Your task to perform on an android device: see creations saved in the google photos Image 0: 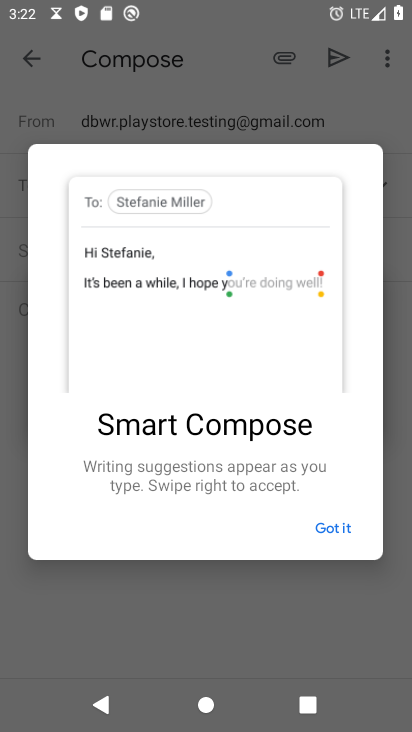
Step 0: press home button
Your task to perform on an android device: see creations saved in the google photos Image 1: 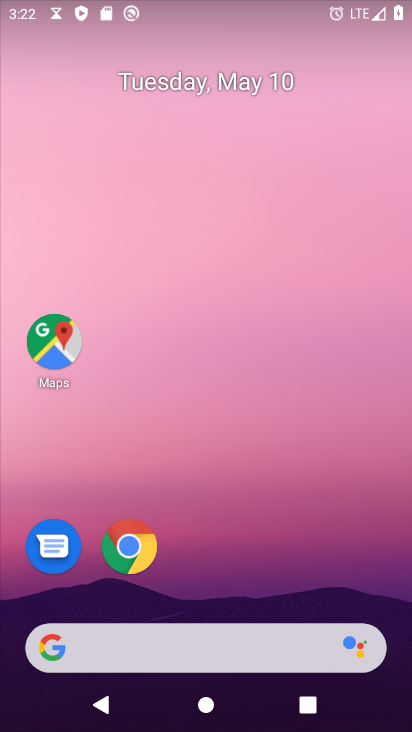
Step 1: drag from (224, 570) to (389, 11)
Your task to perform on an android device: see creations saved in the google photos Image 2: 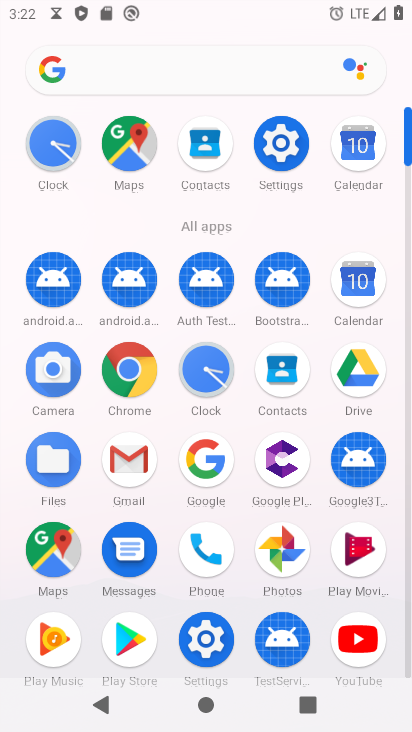
Step 2: click (296, 553)
Your task to perform on an android device: see creations saved in the google photos Image 3: 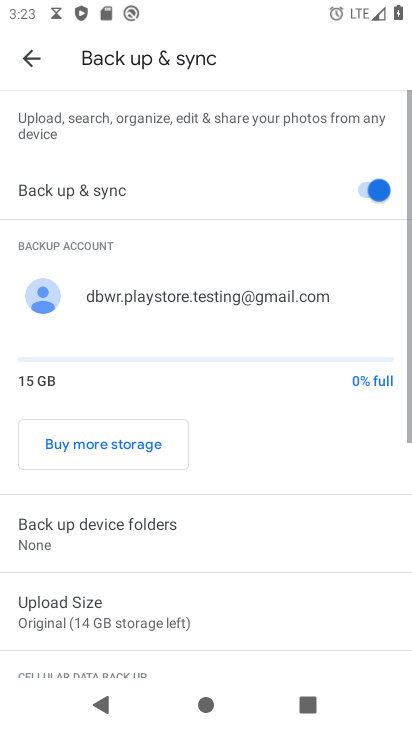
Step 3: click (29, 67)
Your task to perform on an android device: see creations saved in the google photos Image 4: 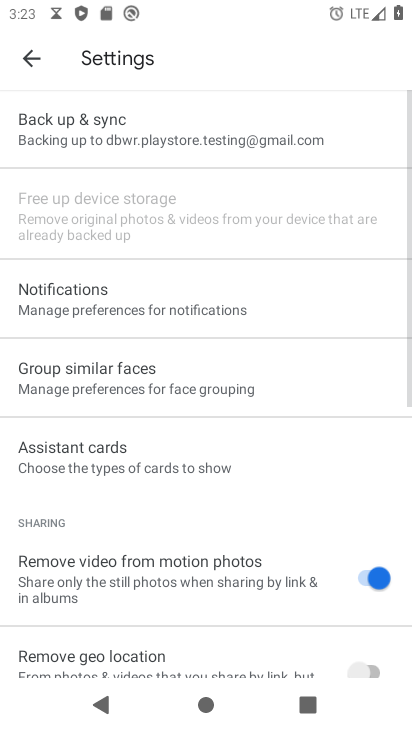
Step 4: click (38, 62)
Your task to perform on an android device: see creations saved in the google photos Image 5: 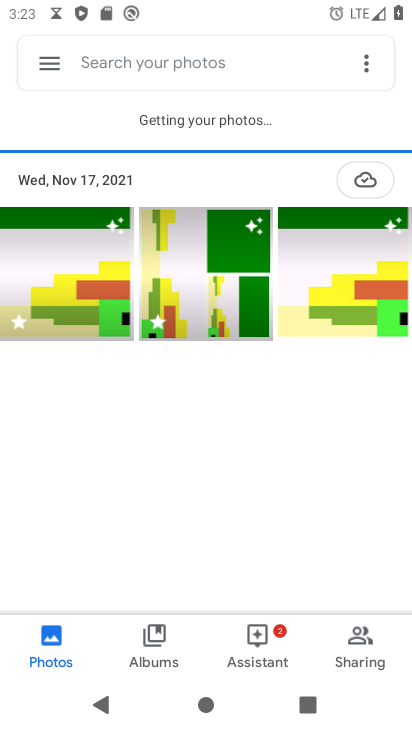
Step 5: click (233, 76)
Your task to perform on an android device: see creations saved in the google photos Image 6: 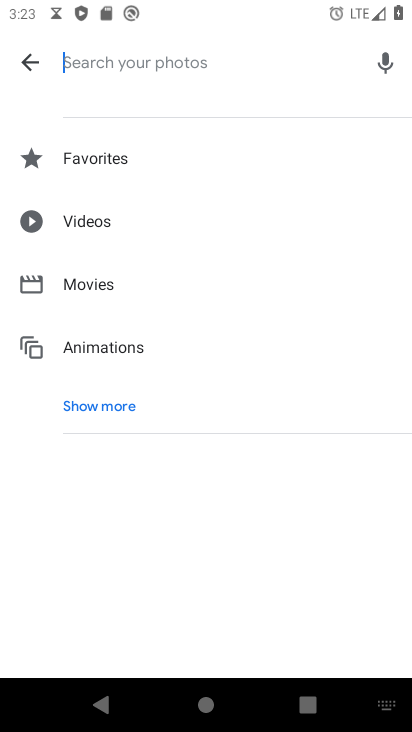
Step 6: type "creations"
Your task to perform on an android device: see creations saved in the google photos Image 7: 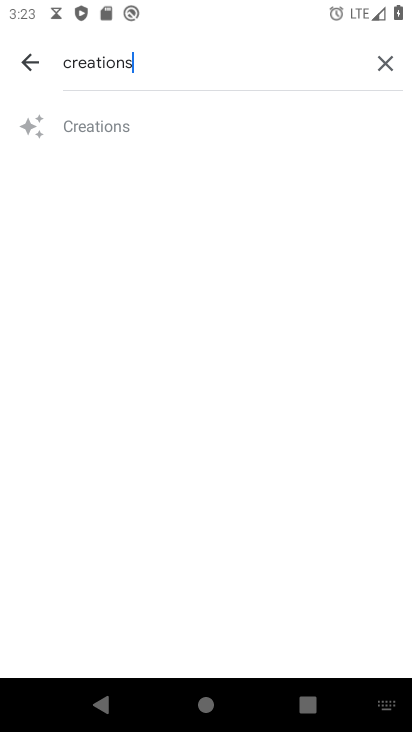
Step 7: click (84, 141)
Your task to perform on an android device: see creations saved in the google photos Image 8: 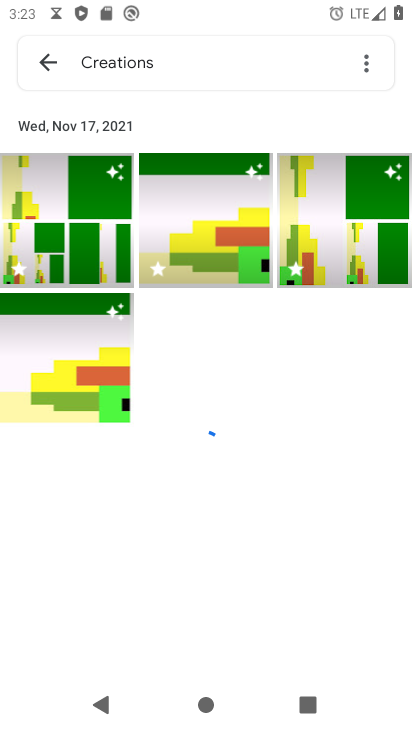
Step 8: task complete